Your task to perform on an android device: turn off priority inbox in the gmail app Image 0: 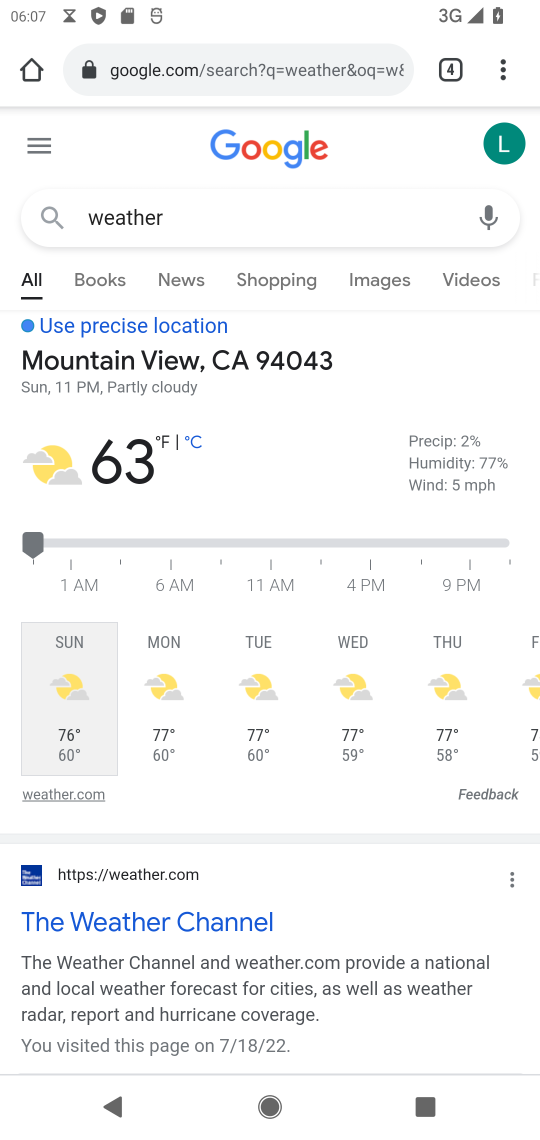
Step 0: press home button
Your task to perform on an android device: turn off priority inbox in the gmail app Image 1: 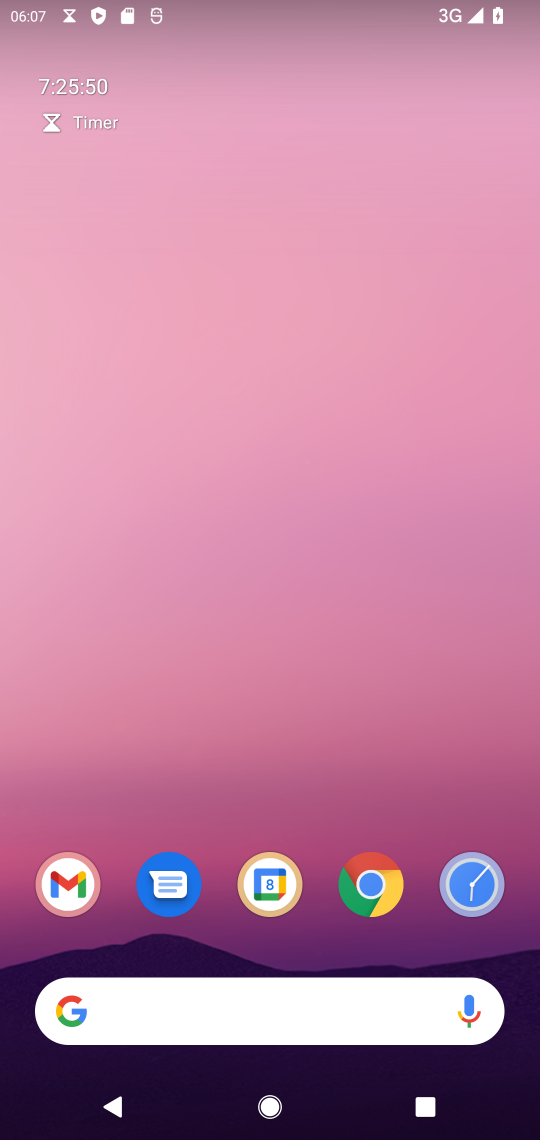
Step 1: click (70, 884)
Your task to perform on an android device: turn off priority inbox in the gmail app Image 2: 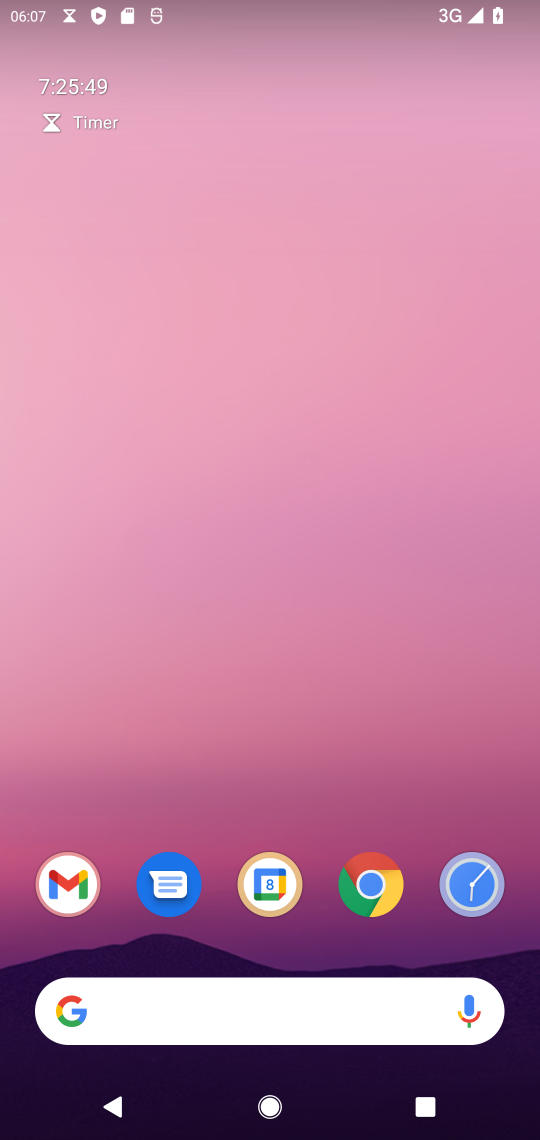
Step 2: click (70, 884)
Your task to perform on an android device: turn off priority inbox in the gmail app Image 3: 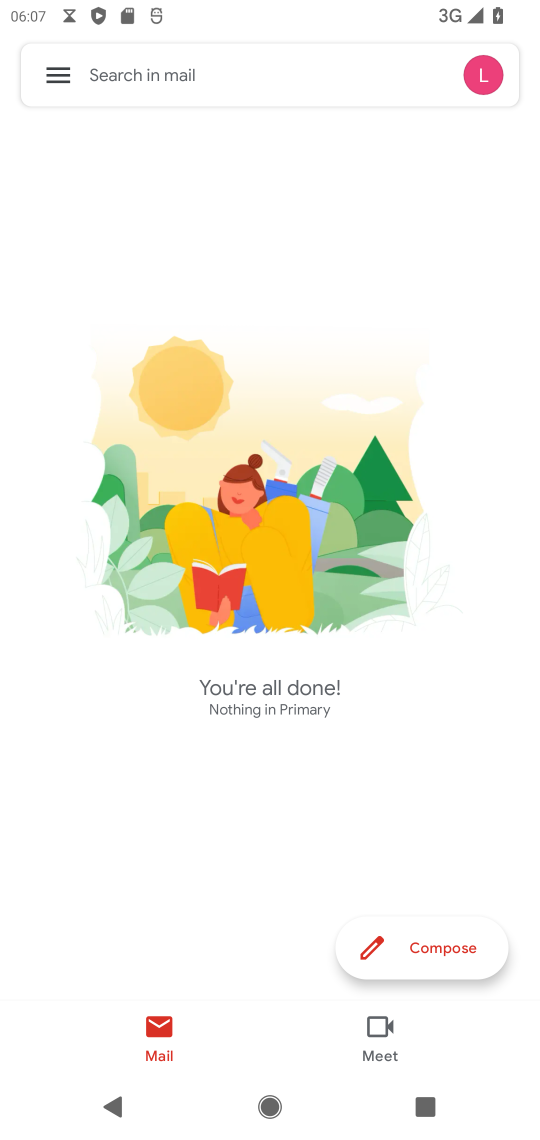
Step 3: click (43, 83)
Your task to perform on an android device: turn off priority inbox in the gmail app Image 4: 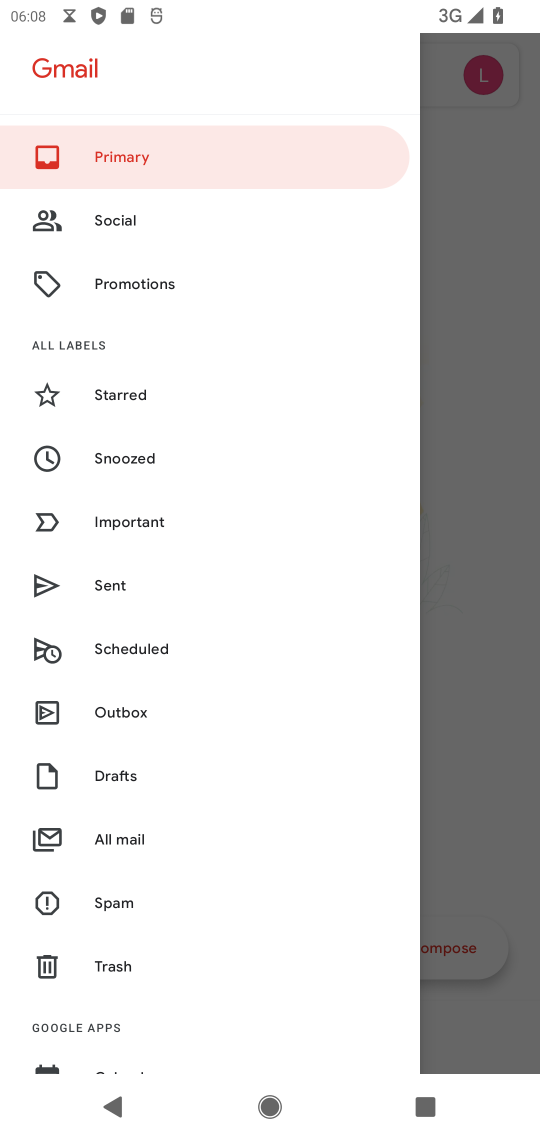
Step 4: drag from (197, 1014) to (145, 304)
Your task to perform on an android device: turn off priority inbox in the gmail app Image 5: 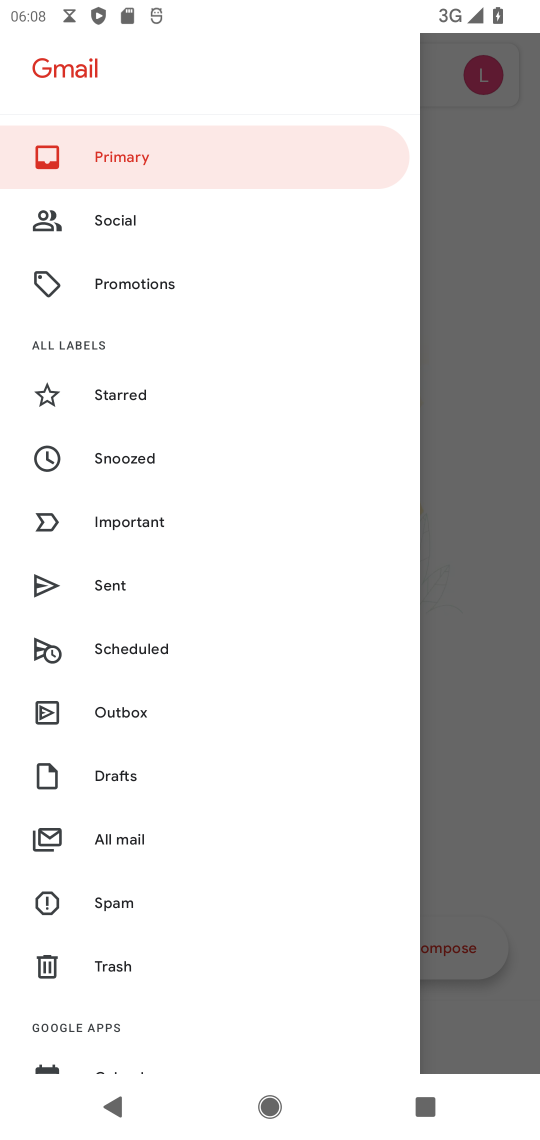
Step 5: drag from (158, 1026) to (145, 410)
Your task to perform on an android device: turn off priority inbox in the gmail app Image 6: 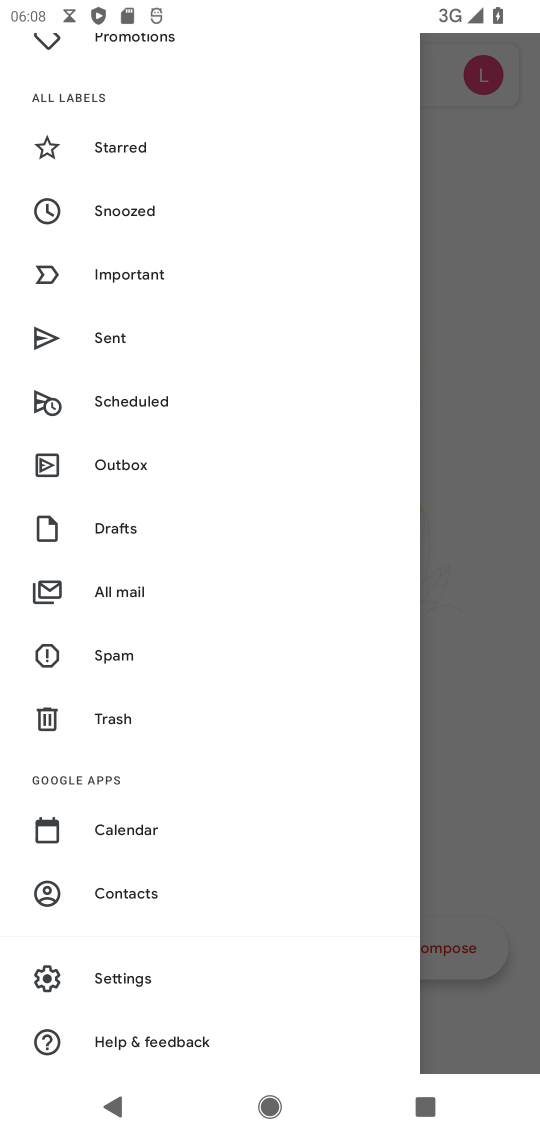
Step 6: click (159, 962)
Your task to perform on an android device: turn off priority inbox in the gmail app Image 7: 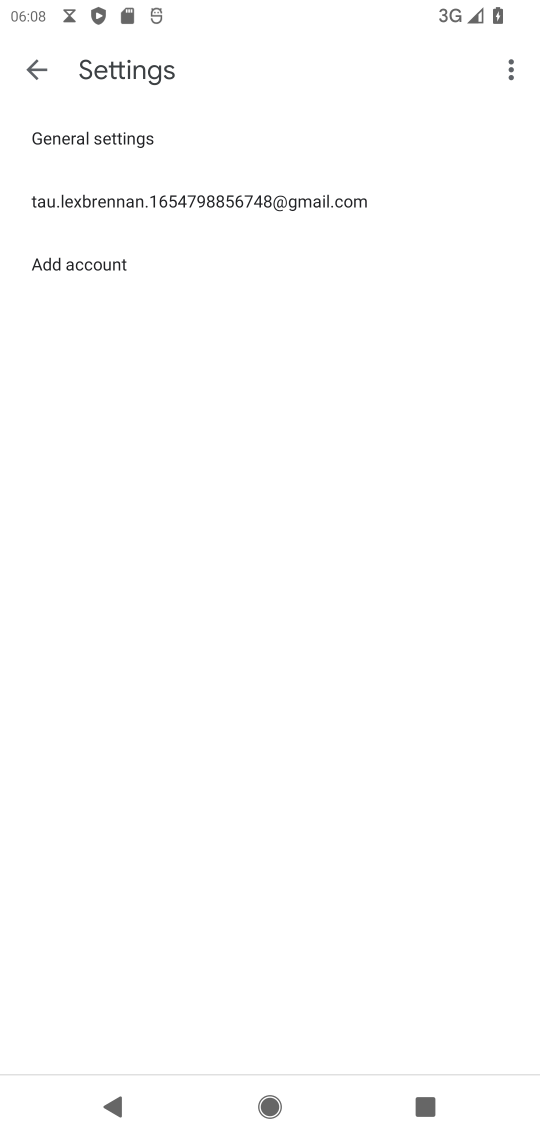
Step 7: click (287, 199)
Your task to perform on an android device: turn off priority inbox in the gmail app Image 8: 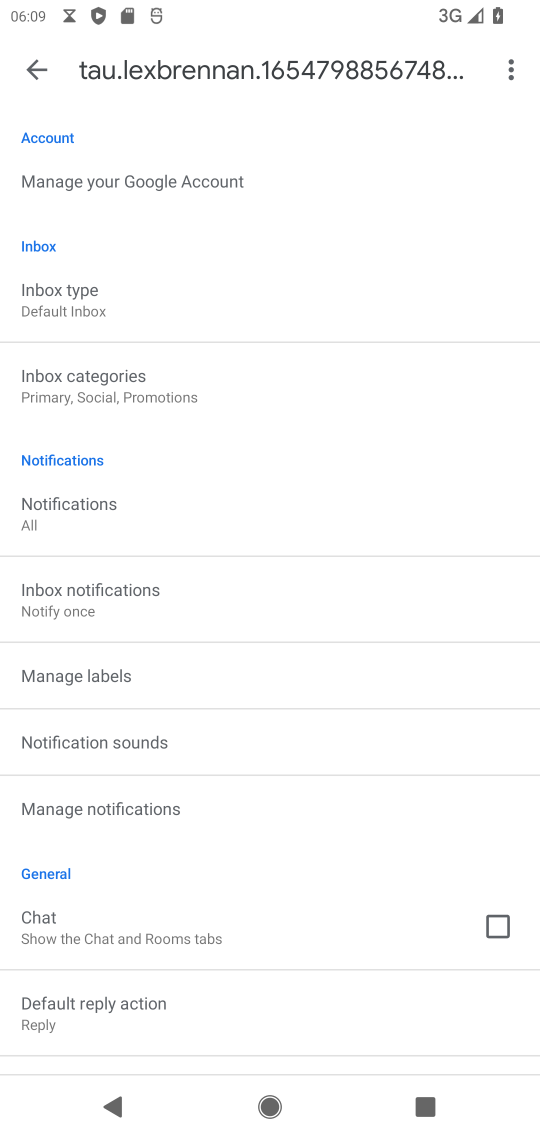
Step 8: click (128, 311)
Your task to perform on an android device: turn off priority inbox in the gmail app Image 9: 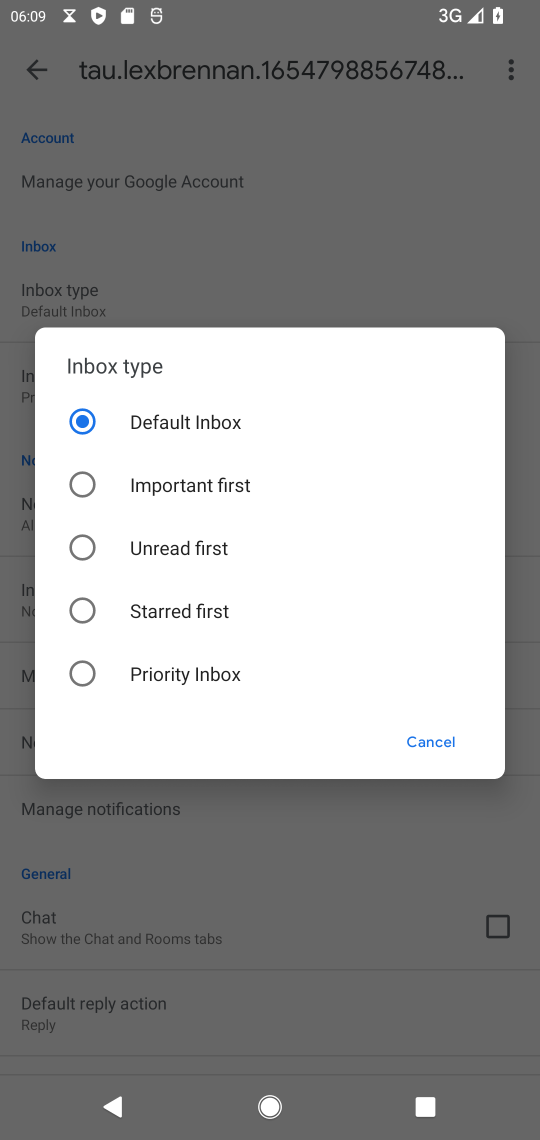
Step 9: task complete